Your task to perform on an android device: Go to settings Image 0: 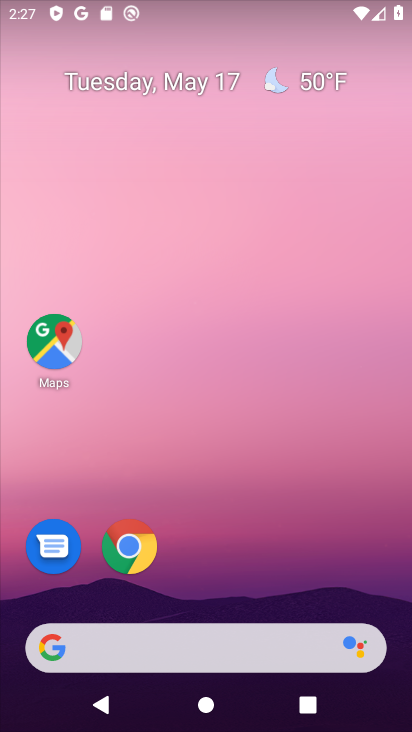
Step 0: drag from (215, 575) to (278, 35)
Your task to perform on an android device: Go to settings Image 1: 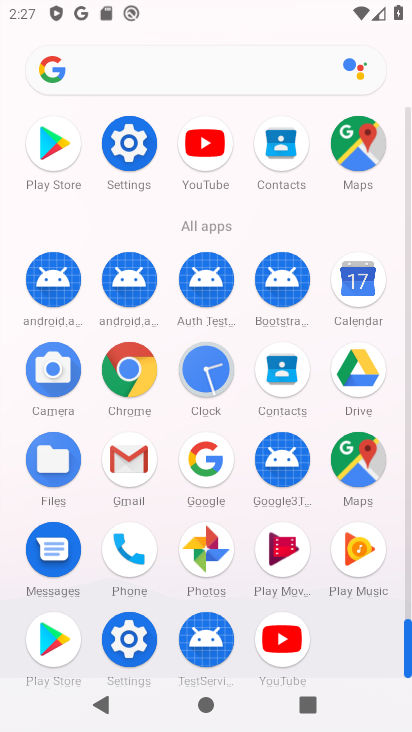
Step 1: click (134, 169)
Your task to perform on an android device: Go to settings Image 2: 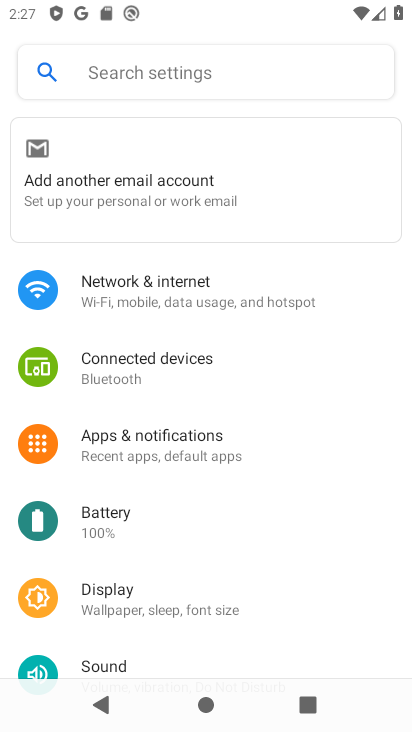
Step 2: task complete